Your task to perform on an android device: Clear the shopping cart on costco.com. Search for corsair k70 on costco.com, select the first entry, and add it to the cart. Image 0: 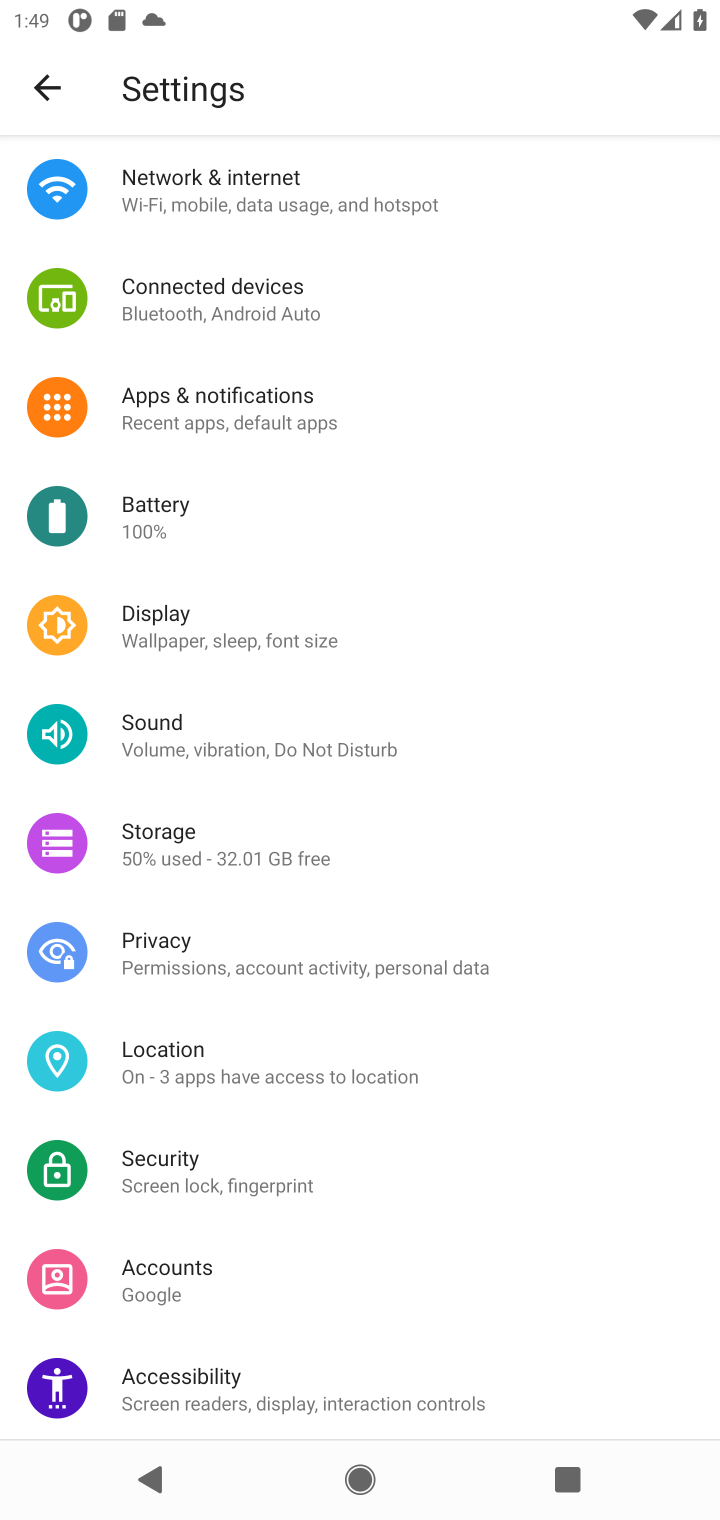
Step 0: press home button
Your task to perform on an android device: Clear the shopping cart on costco.com. Search for corsair k70 on costco.com, select the first entry, and add it to the cart. Image 1: 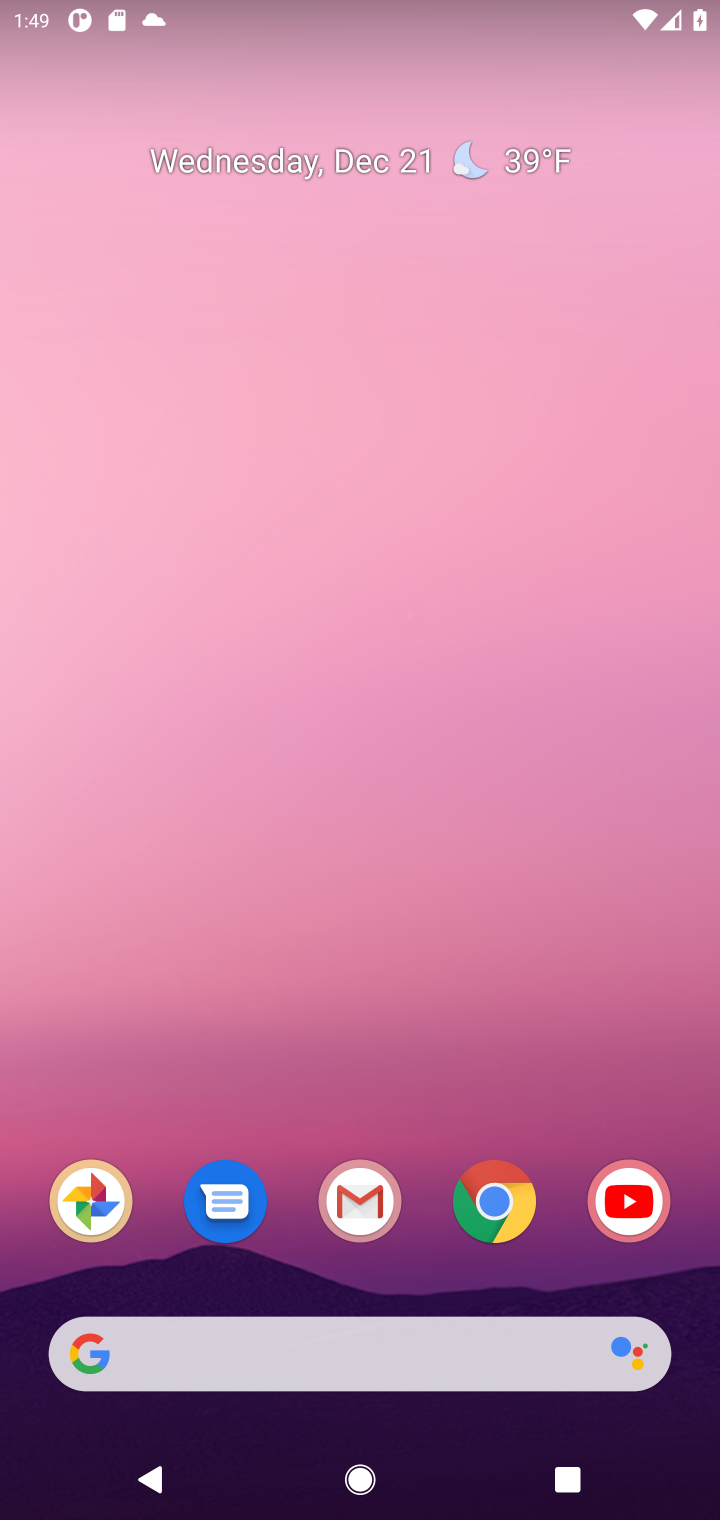
Step 1: click (494, 1214)
Your task to perform on an android device: Clear the shopping cart on costco.com. Search for corsair k70 on costco.com, select the first entry, and add it to the cart. Image 2: 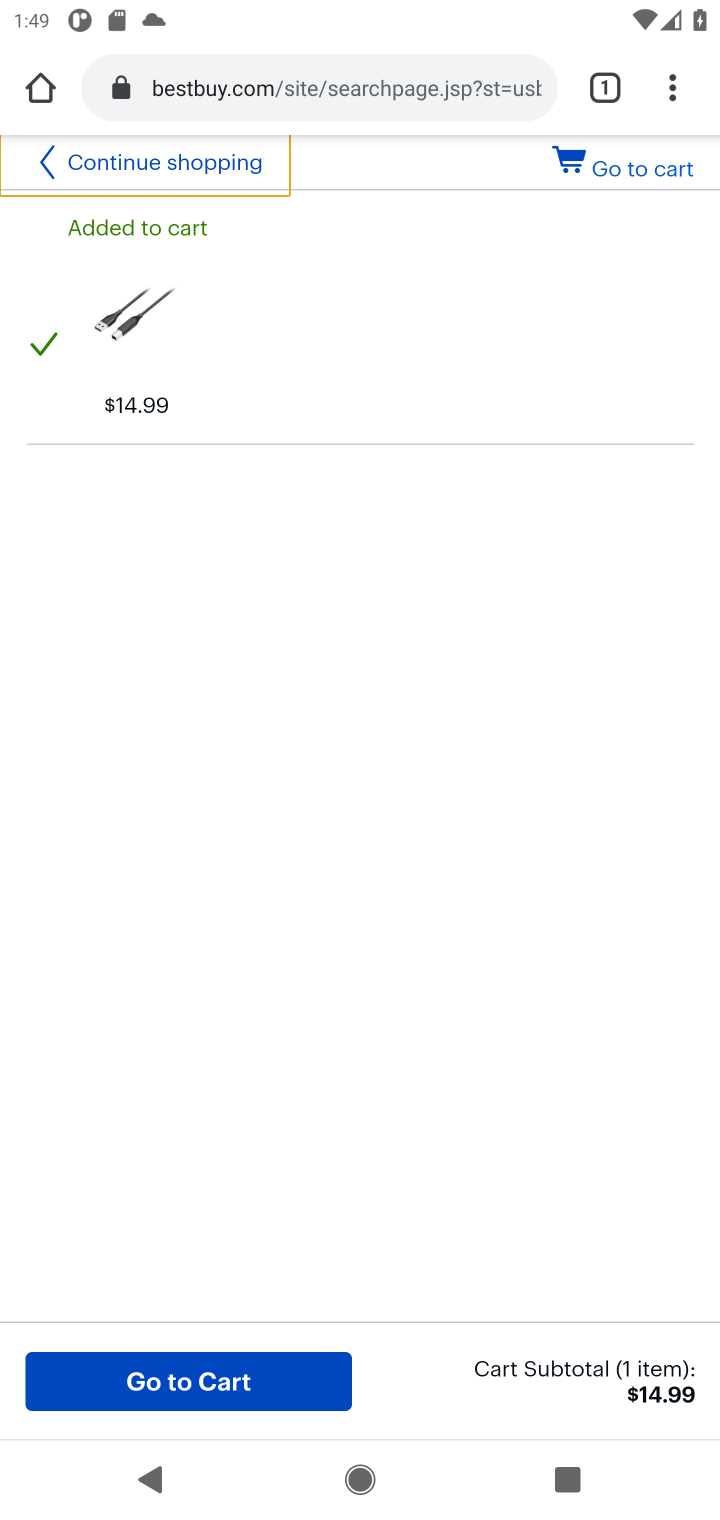
Step 2: click (267, 95)
Your task to perform on an android device: Clear the shopping cart on costco.com. Search for corsair k70 on costco.com, select the first entry, and add it to the cart. Image 3: 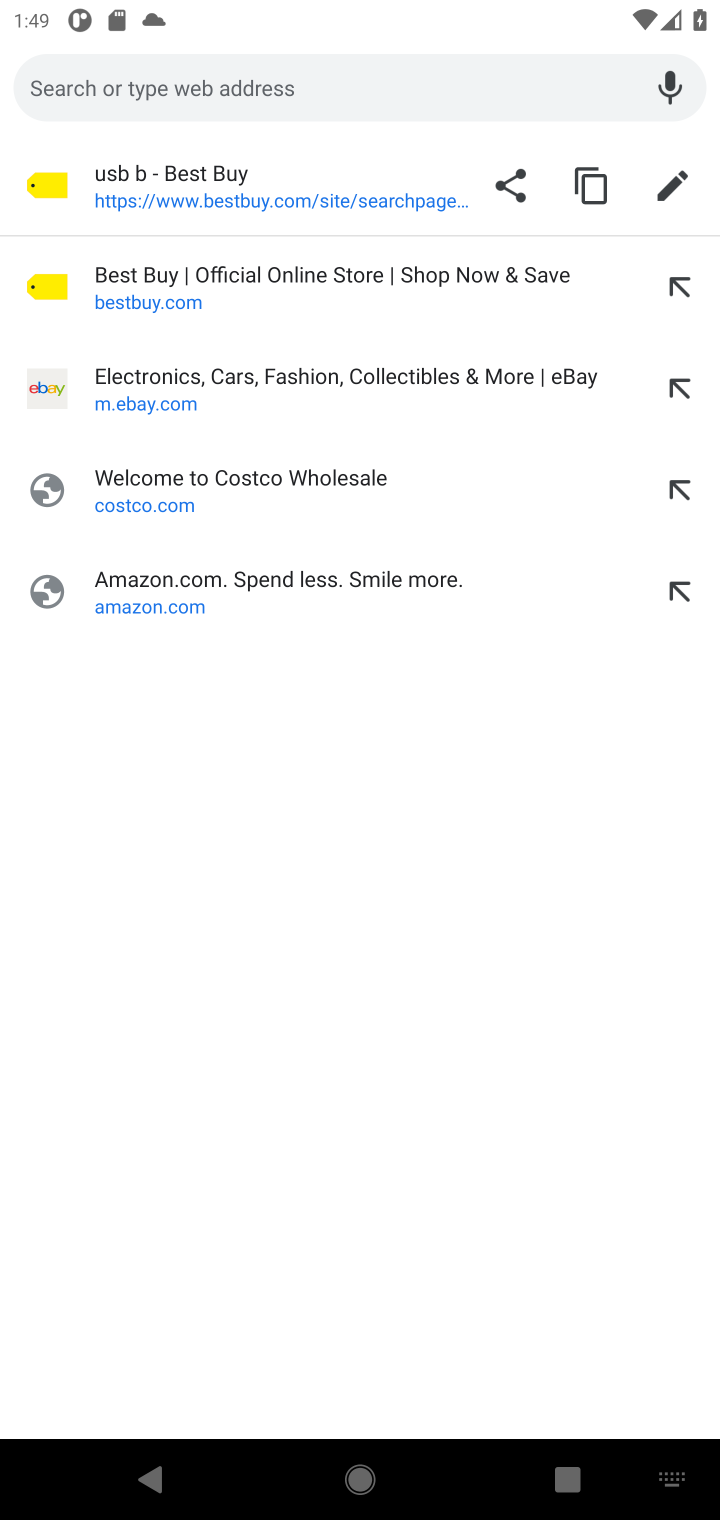
Step 3: click (140, 495)
Your task to perform on an android device: Clear the shopping cart on costco.com. Search for corsair k70 on costco.com, select the first entry, and add it to the cart. Image 4: 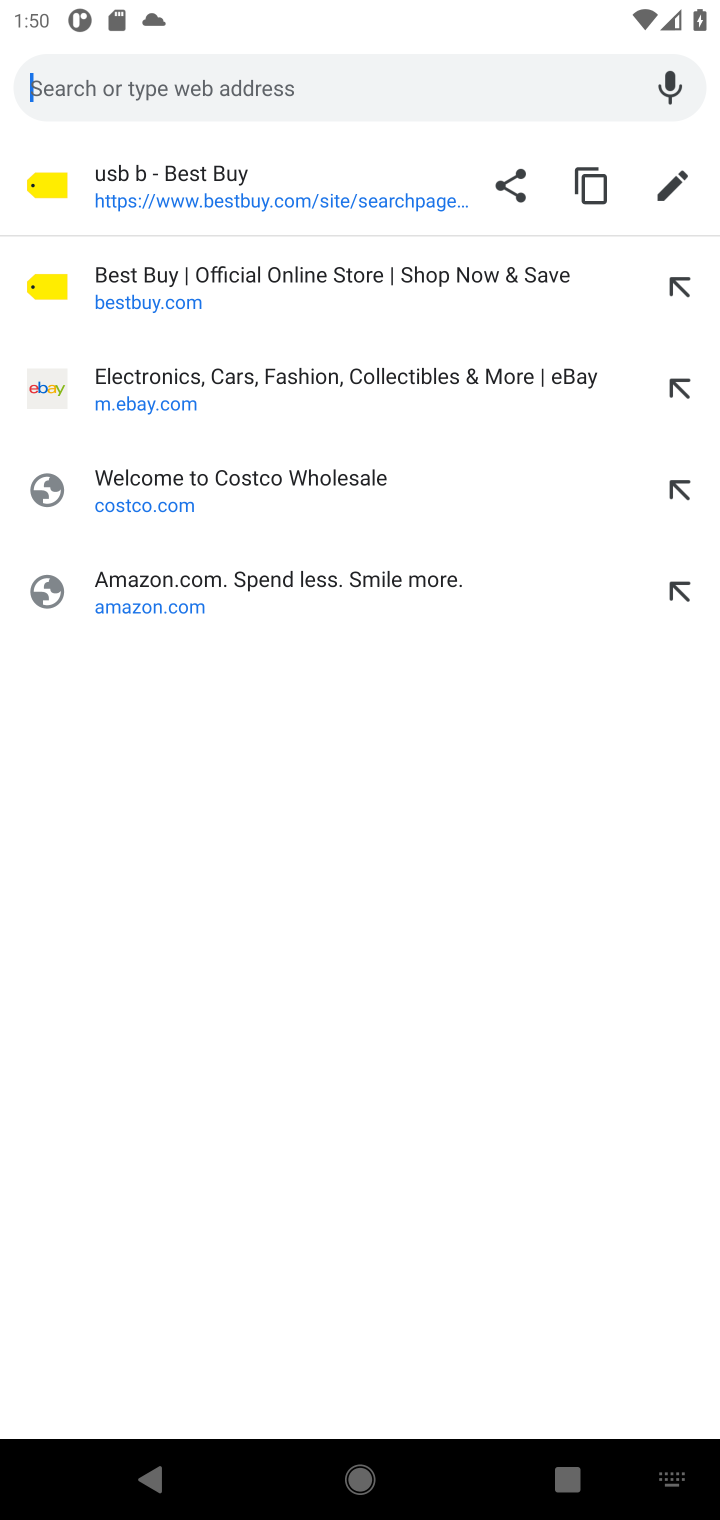
Step 4: click (132, 495)
Your task to perform on an android device: Clear the shopping cart on costco.com. Search for corsair k70 on costco.com, select the first entry, and add it to the cart. Image 5: 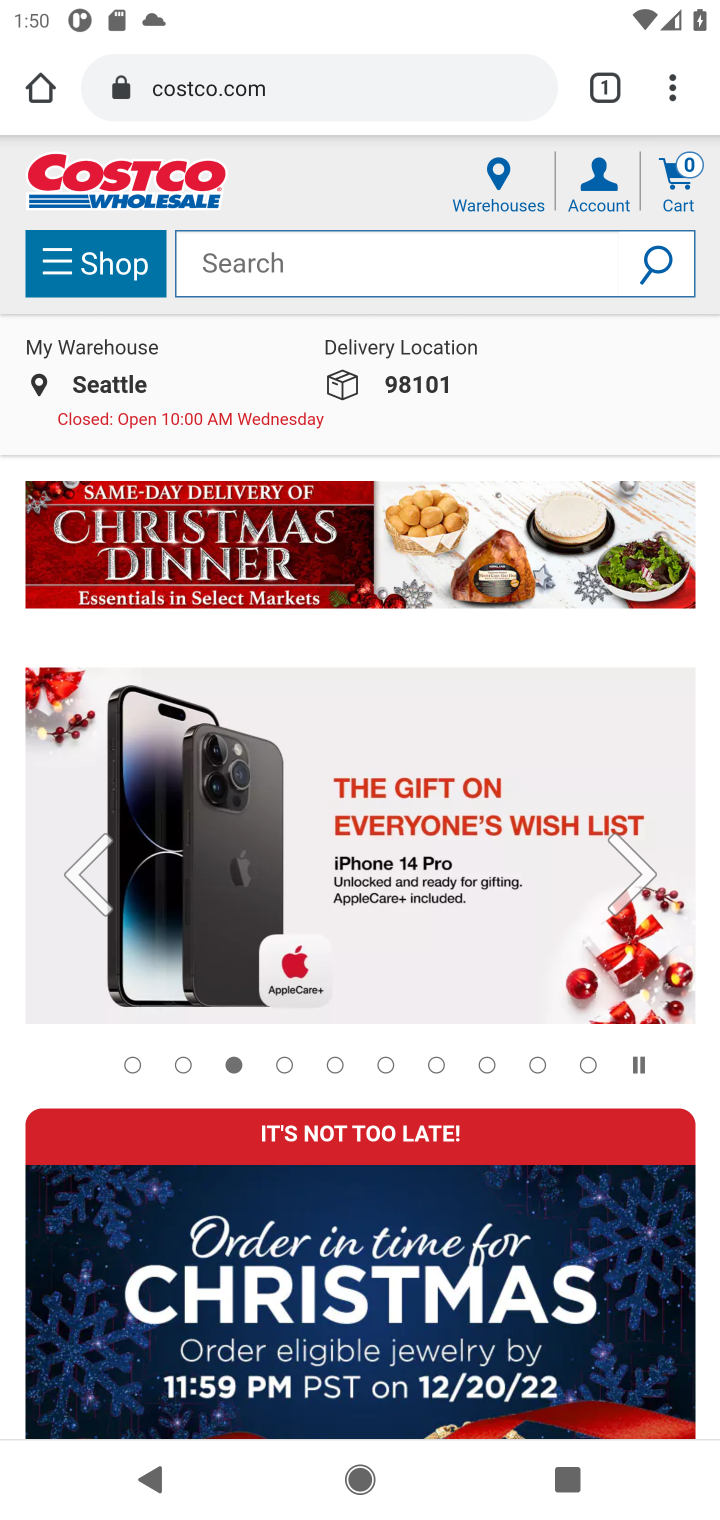
Step 5: click (676, 184)
Your task to perform on an android device: Clear the shopping cart on costco.com. Search for corsair k70 on costco.com, select the first entry, and add it to the cart. Image 6: 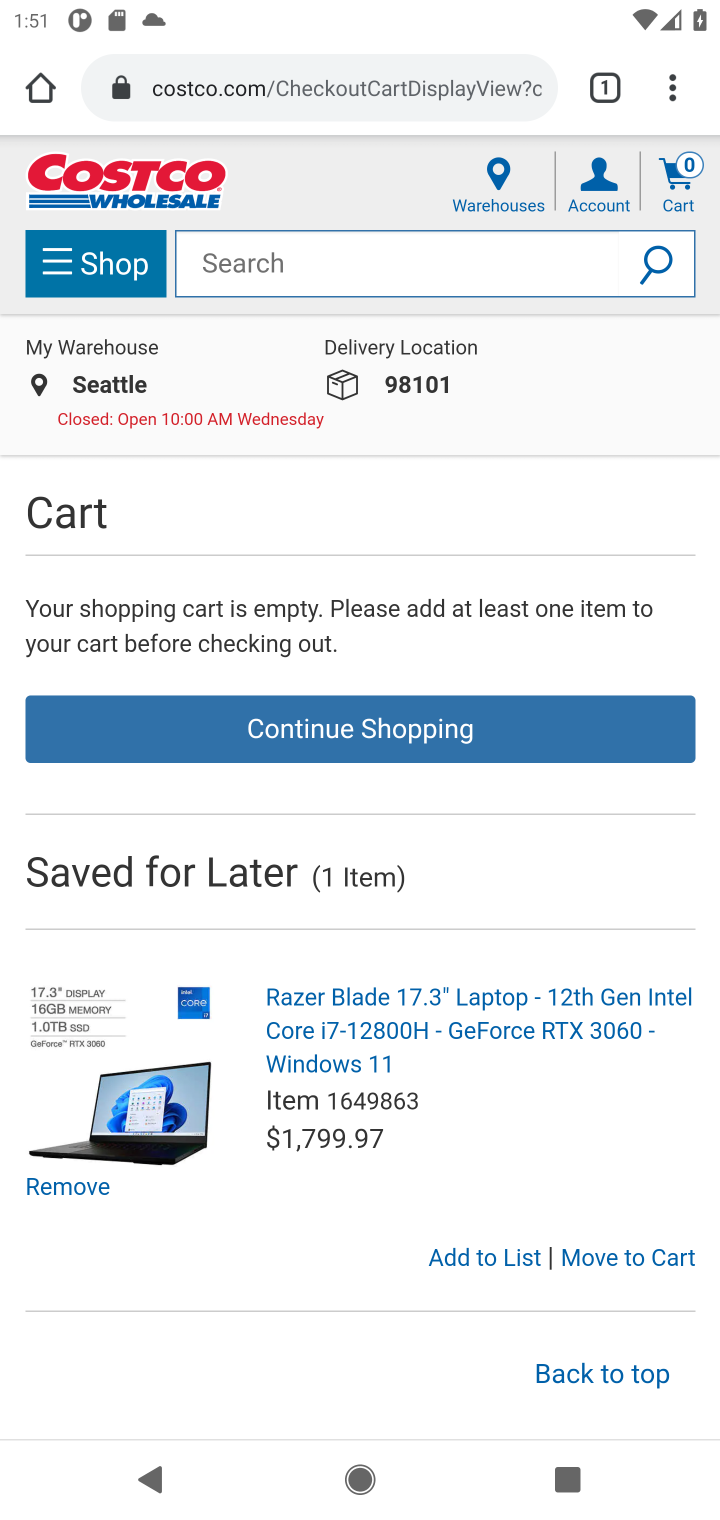
Step 6: click (206, 245)
Your task to perform on an android device: Clear the shopping cart on costco.com. Search for corsair k70 on costco.com, select the first entry, and add it to the cart. Image 7: 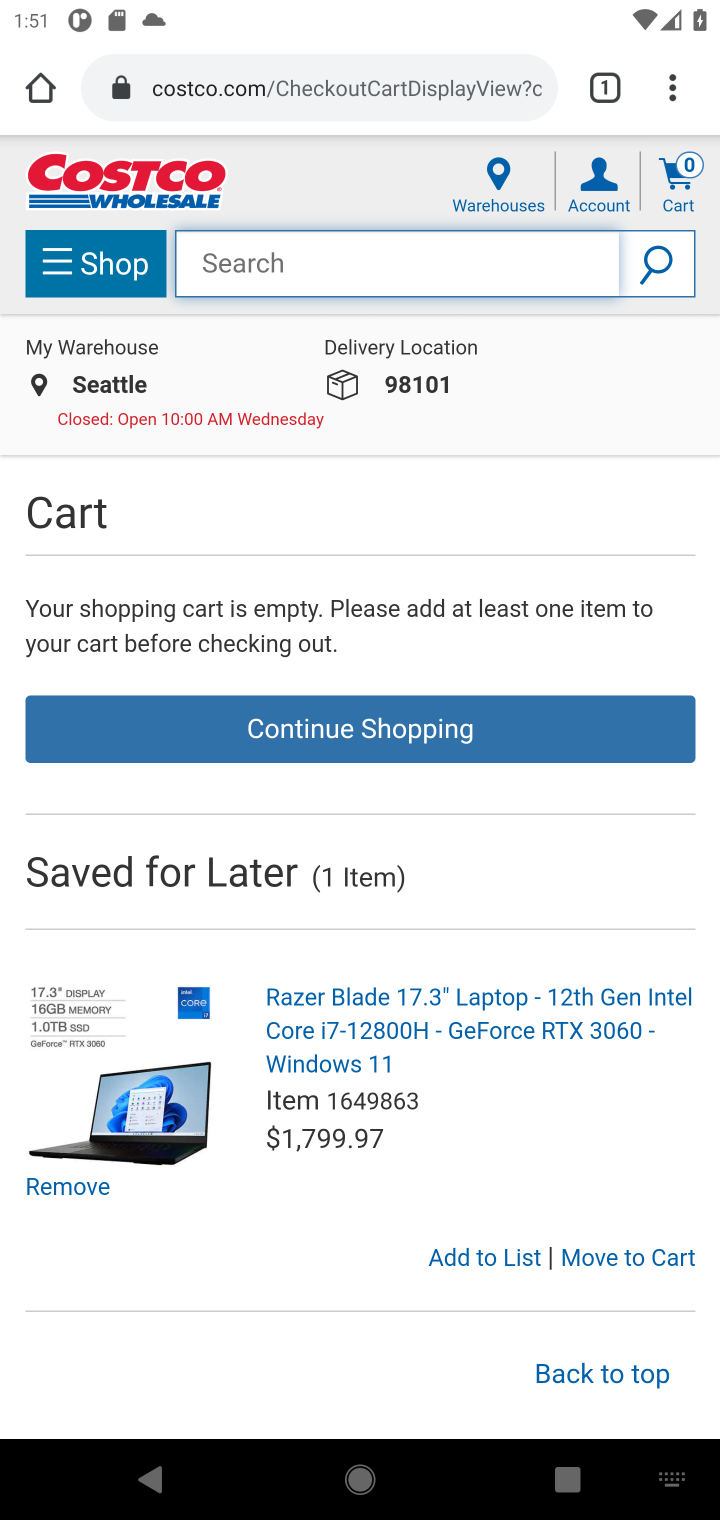
Step 7: type "corsair k70"
Your task to perform on an android device: Clear the shopping cart on costco.com. Search for corsair k70 on costco.com, select the first entry, and add it to the cart. Image 8: 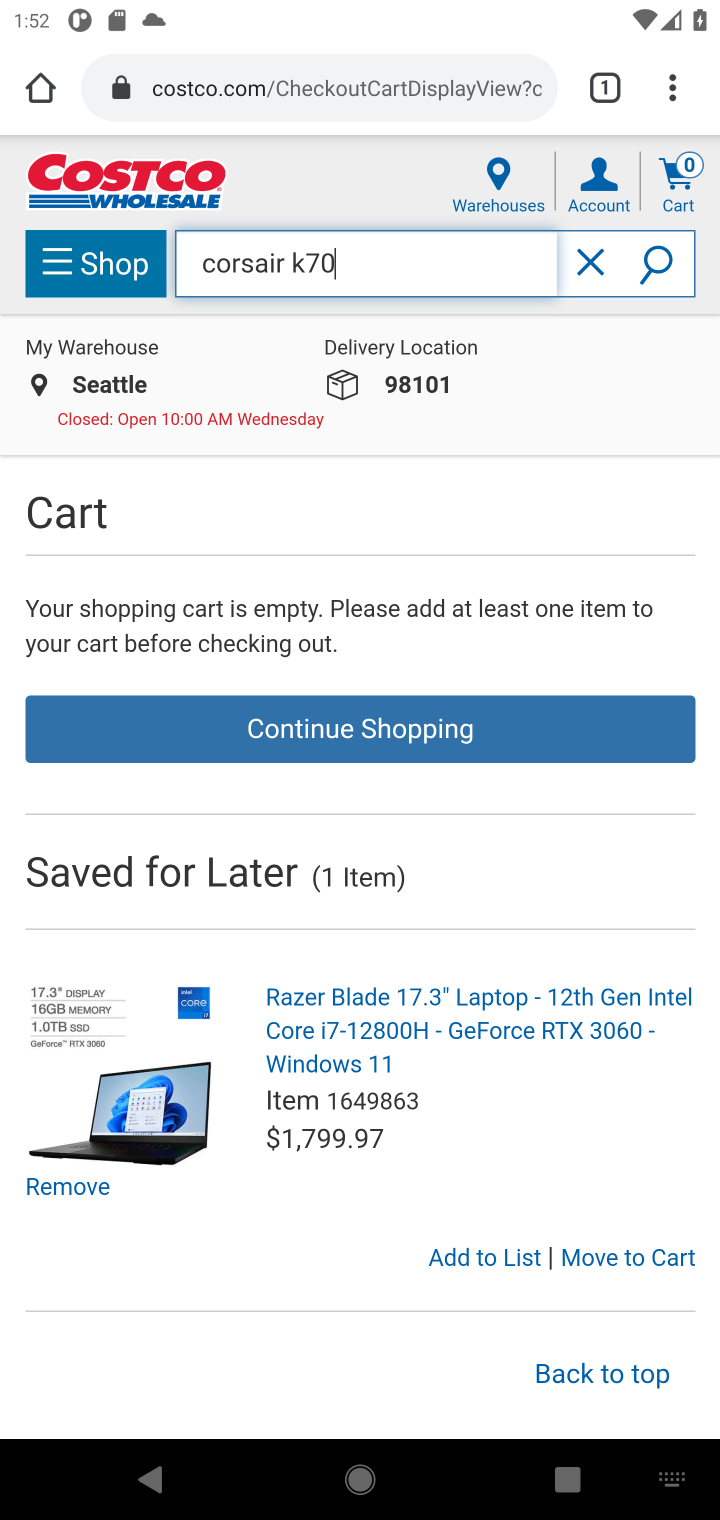
Step 8: click (659, 269)
Your task to perform on an android device: Clear the shopping cart on costco.com. Search for corsair k70 on costco.com, select the first entry, and add it to the cart. Image 9: 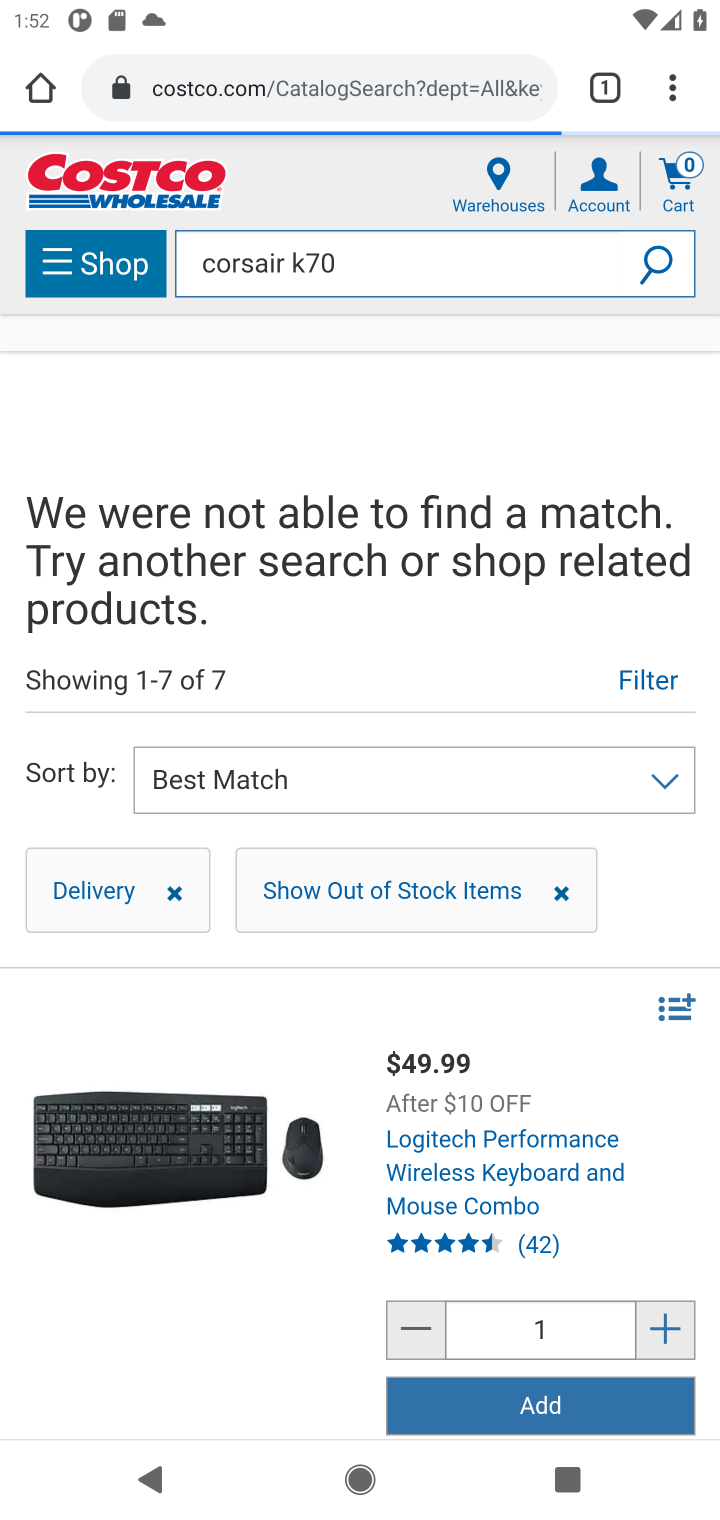
Step 9: task complete